Your task to perform on an android device: Open CNN.com Image 0: 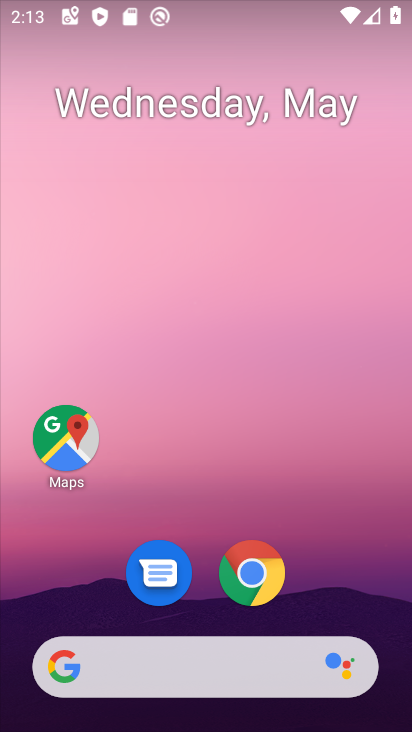
Step 0: drag from (308, 601) to (293, 109)
Your task to perform on an android device: Open CNN.com Image 1: 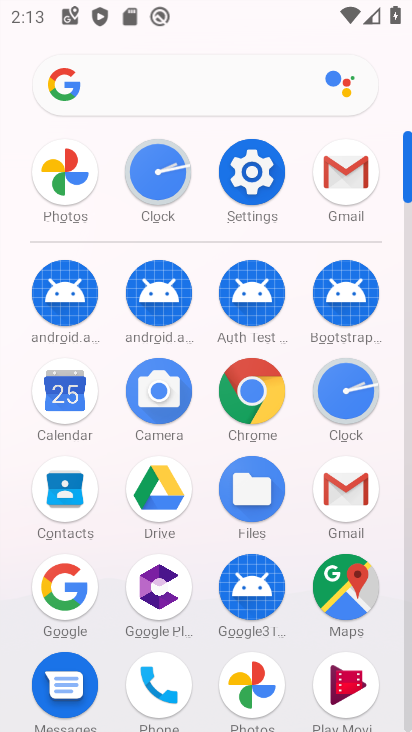
Step 1: click (241, 388)
Your task to perform on an android device: Open CNN.com Image 2: 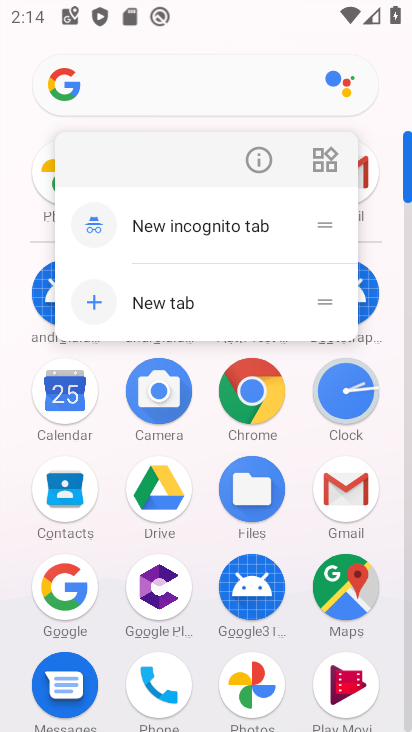
Step 2: click (241, 388)
Your task to perform on an android device: Open CNN.com Image 3: 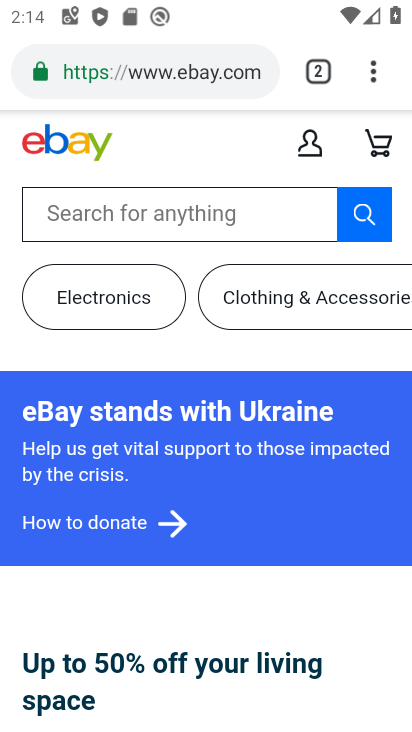
Step 3: click (156, 74)
Your task to perform on an android device: Open CNN.com Image 4: 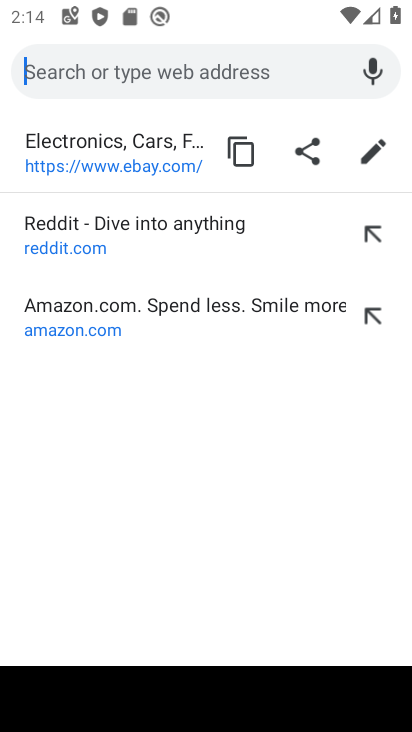
Step 4: type "cnn.com"
Your task to perform on an android device: Open CNN.com Image 5: 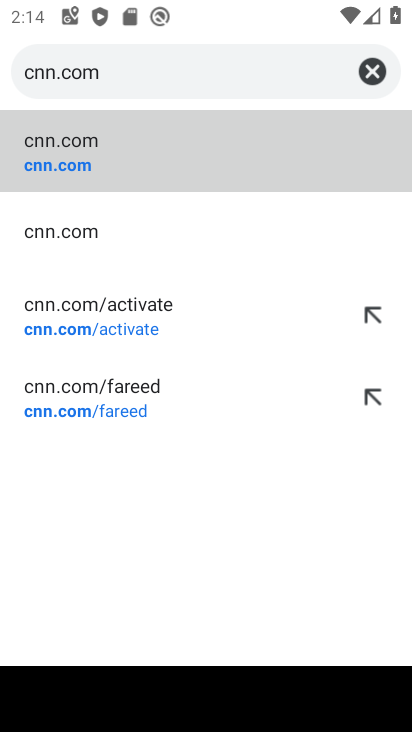
Step 5: click (82, 151)
Your task to perform on an android device: Open CNN.com Image 6: 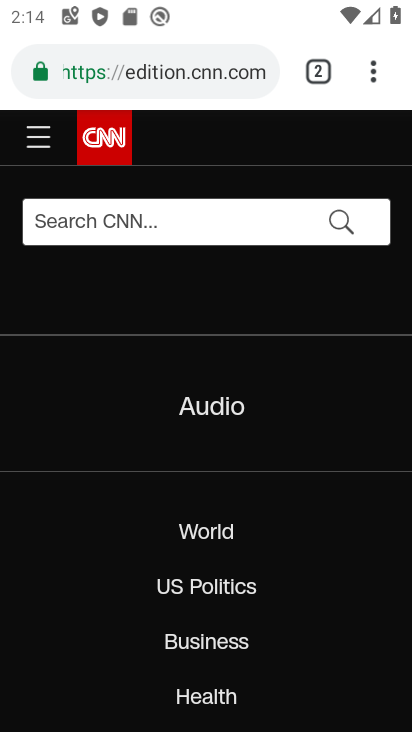
Step 6: task complete